Your task to perform on an android device: open the mobile data screen to see how much data has been used Image 0: 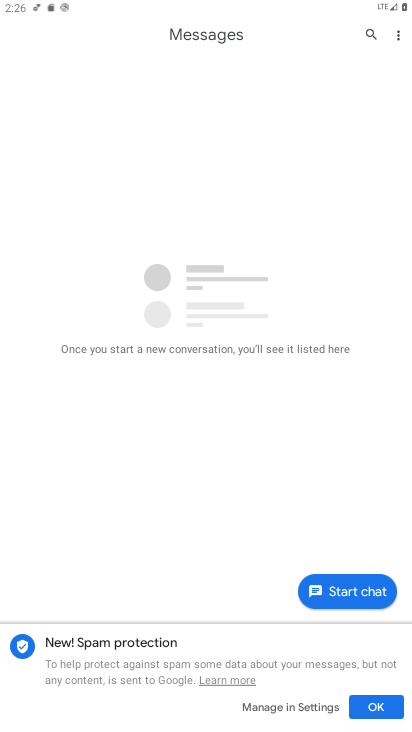
Step 0: press home button
Your task to perform on an android device: open the mobile data screen to see how much data has been used Image 1: 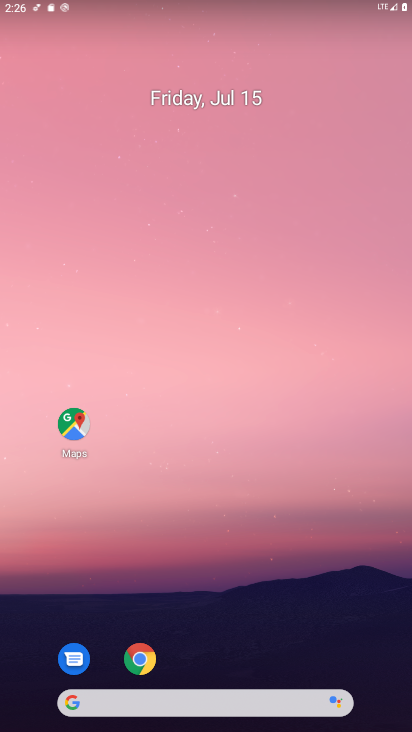
Step 1: drag from (220, 661) to (231, 191)
Your task to perform on an android device: open the mobile data screen to see how much data has been used Image 2: 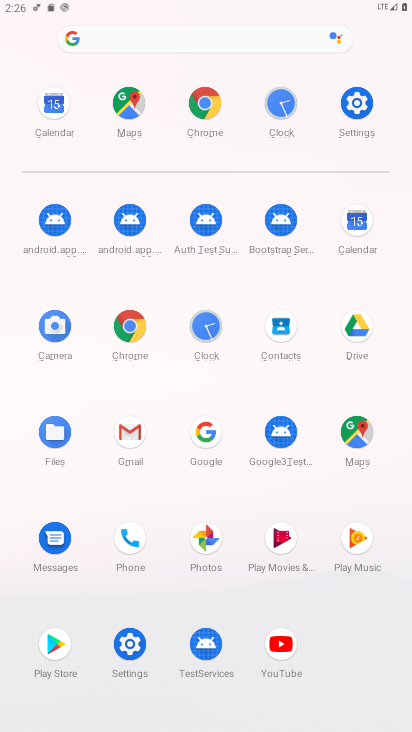
Step 2: click (364, 94)
Your task to perform on an android device: open the mobile data screen to see how much data has been used Image 3: 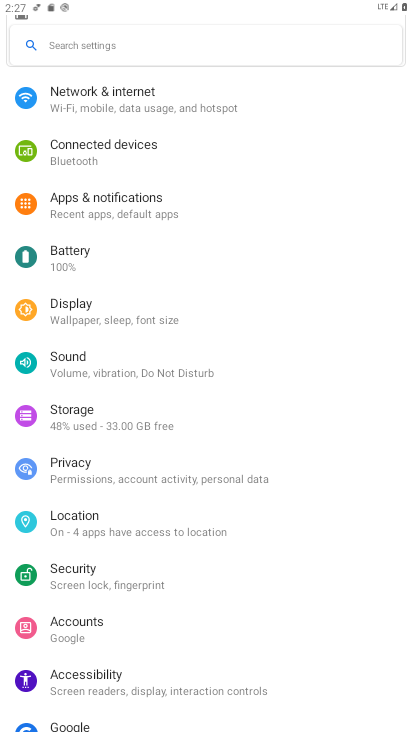
Step 3: click (100, 87)
Your task to perform on an android device: open the mobile data screen to see how much data has been used Image 4: 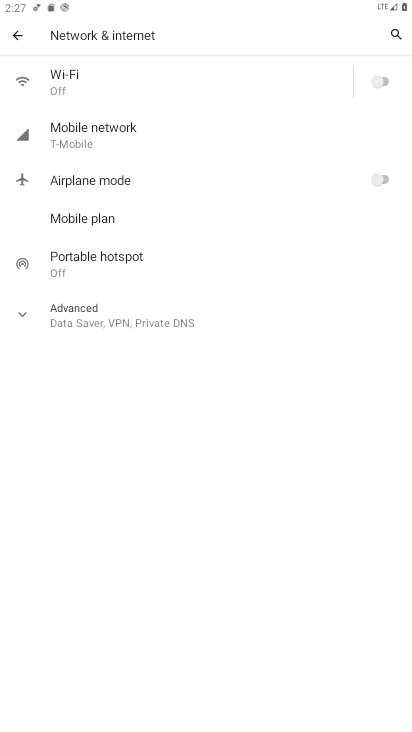
Step 4: click (87, 144)
Your task to perform on an android device: open the mobile data screen to see how much data has been used Image 5: 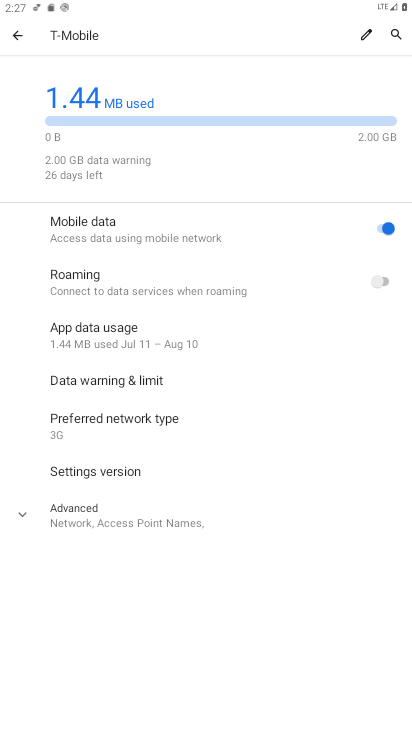
Step 5: task complete